Your task to perform on an android device: turn on showing notifications on the lock screen Image 0: 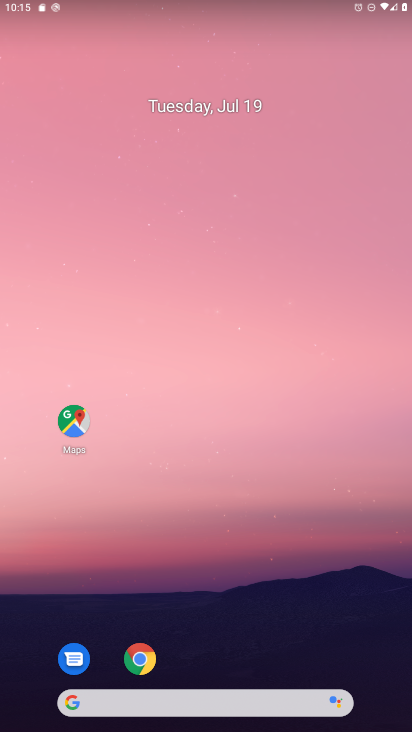
Step 0: drag from (252, 640) to (260, 218)
Your task to perform on an android device: turn on showing notifications on the lock screen Image 1: 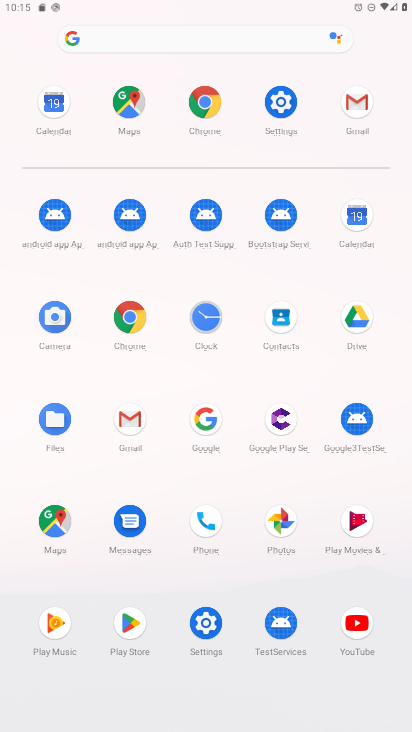
Step 1: click (278, 101)
Your task to perform on an android device: turn on showing notifications on the lock screen Image 2: 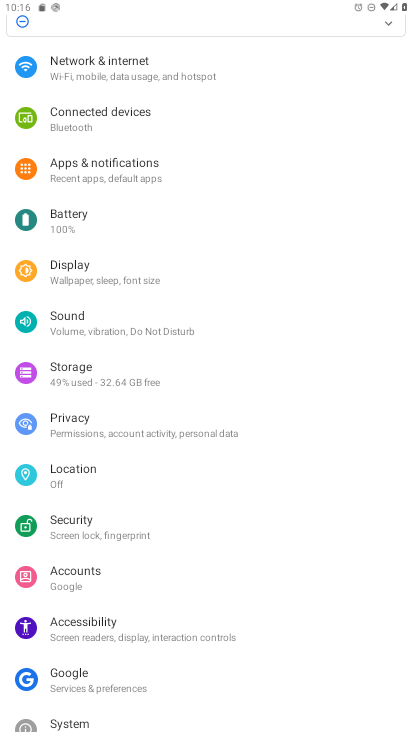
Step 2: click (130, 165)
Your task to perform on an android device: turn on showing notifications on the lock screen Image 3: 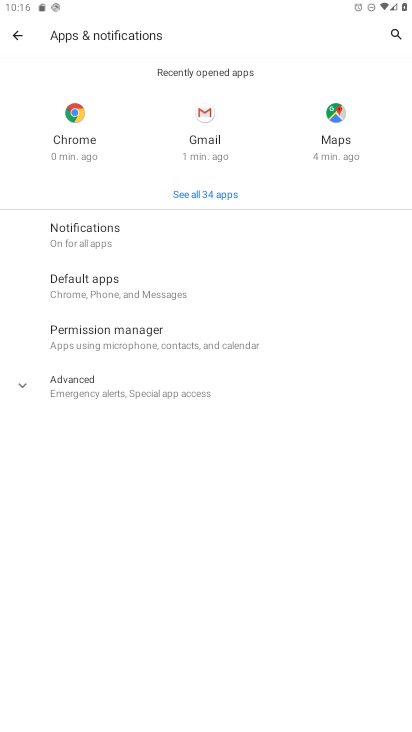
Step 3: click (138, 249)
Your task to perform on an android device: turn on showing notifications on the lock screen Image 4: 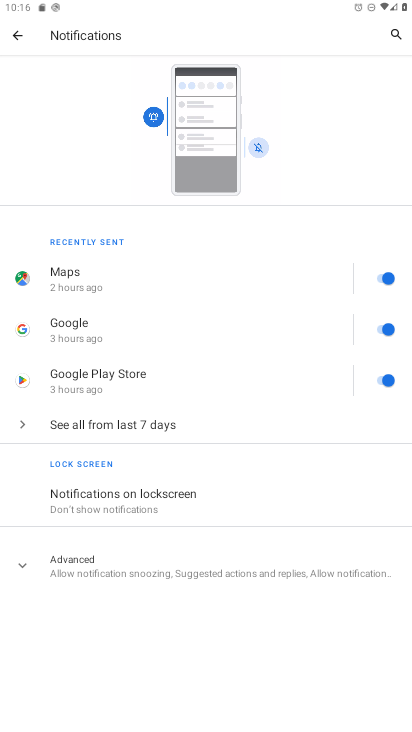
Step 4: click (183, 512)
Your task to perform on an android device: turn on showing notifications on the lock screen Image 5: 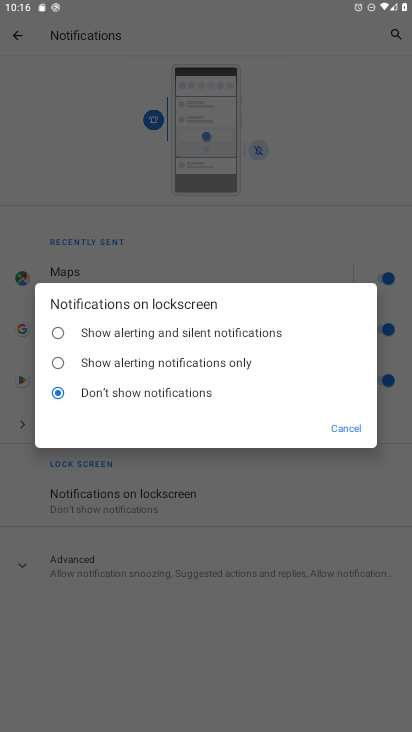
Step 5: click (144, 322)
Your task to perform on an android device: turn on showing notifications on the lock screen Image 6: 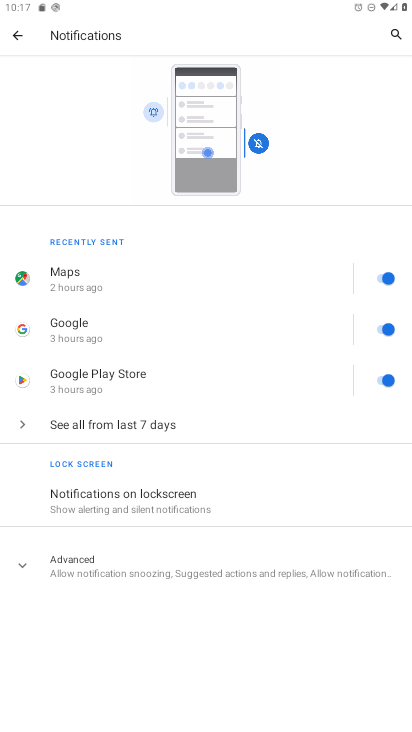
Step 6: click (197, 506)
Your task to perform on an android device: turn on showing notifications on the lock screen Image 7: 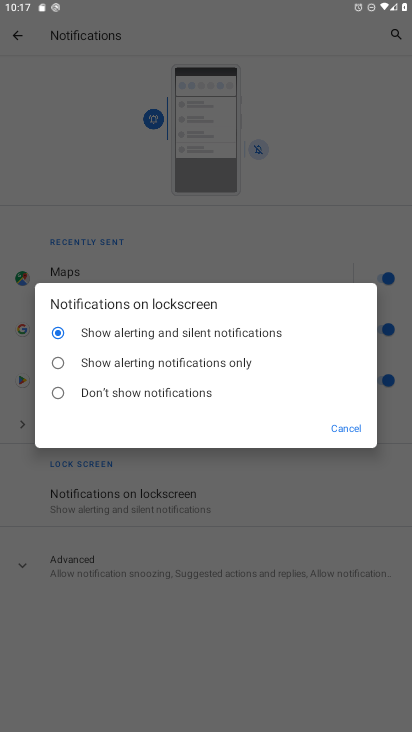
Step 7: task complete